Your task to perform on an android device: turn off wifi Image 0: 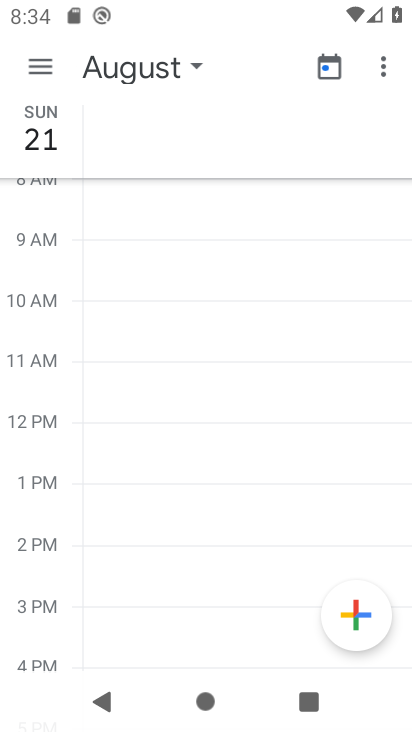
Step 0: press home button
Your task to perform on an android device: turn off wifi Image 1: 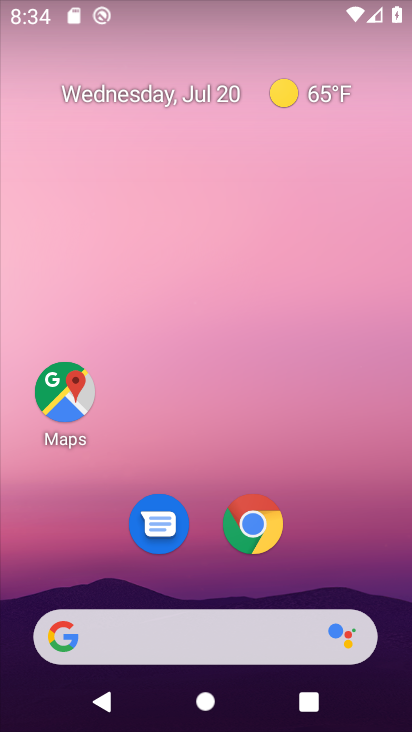
Step 1: drag from (322, 501) to (341, 63)
Your task to perform on an android device: turn off wifi Image 2: 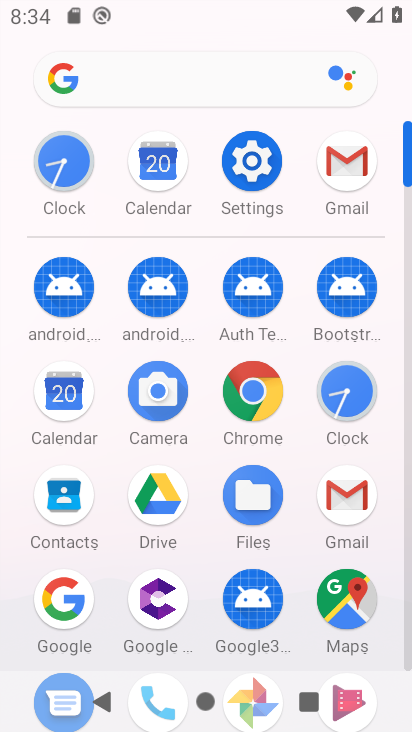
Step 2: click (259, 163)
Your task to perform on an android device: turn off wifi Image 3: 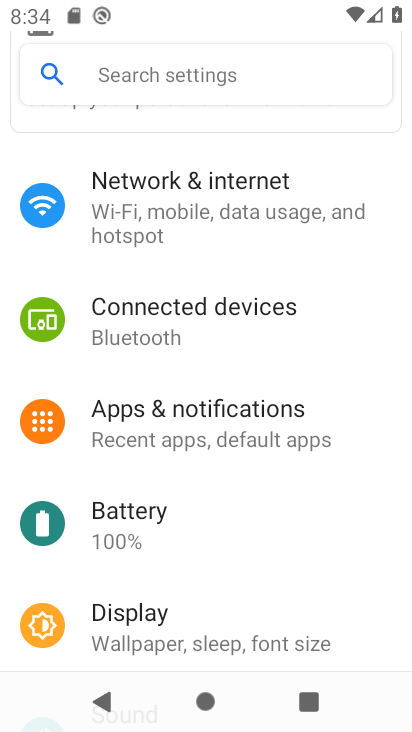
Step 3: click (249, 183)
Your task to perform on an android device: turn off wifi Image 4: 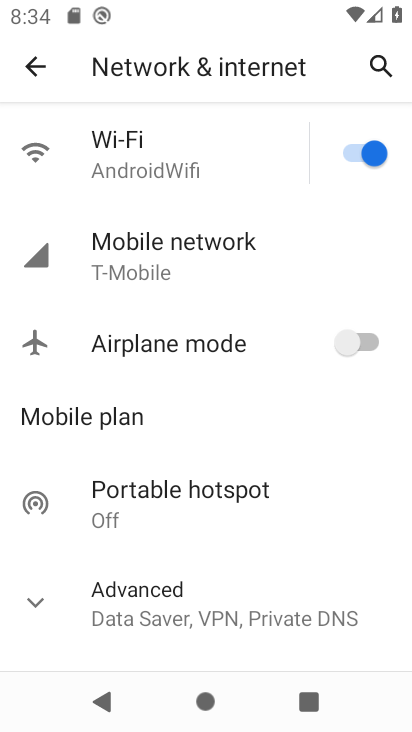
Step 4: click (360, 148)
Your task to perform on an android device: turn off wifi Image 5: 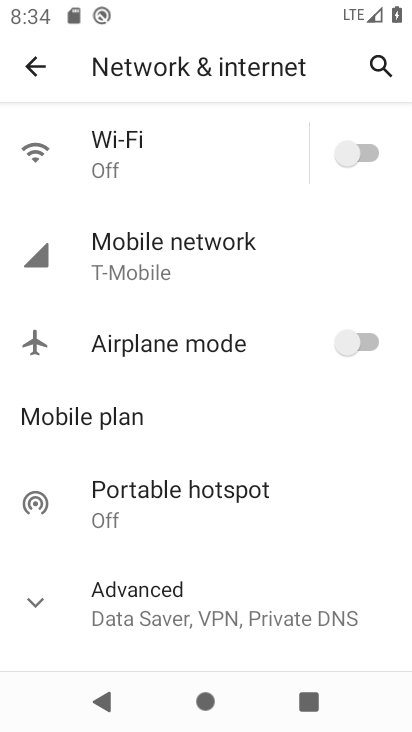
Step 5: task complete